Your task to perform on an android device: Search for "macbook air" on ebay.com, select the first entry, and add it to the cart. Image 0: 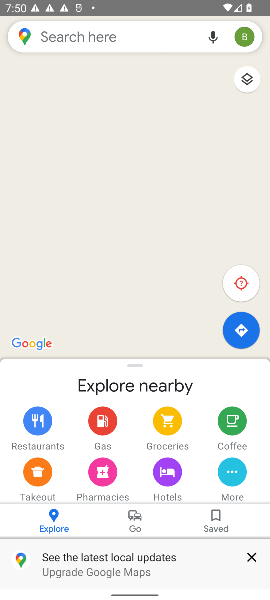
Step 0: press home button
Your task to perform on an android device: Search for "macbook air" on ebay.com, select the first entry, and add it to the cart. Image 1: 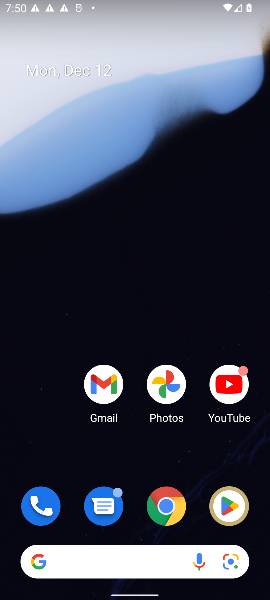
Step 1: click (144, 559)
Your task to perform on an android device: Search for "macbook air" on ebay.com, select the first entry, and add it to the cart. Image 2: 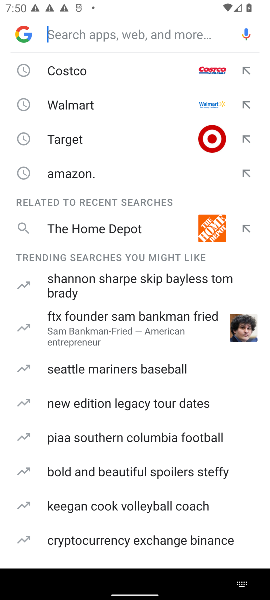
Step 2: type "ebay"
Your task to perform on an android device: Search for "macbook air" on ebay.com, select the first entry, and add it to the cart. Image 3: 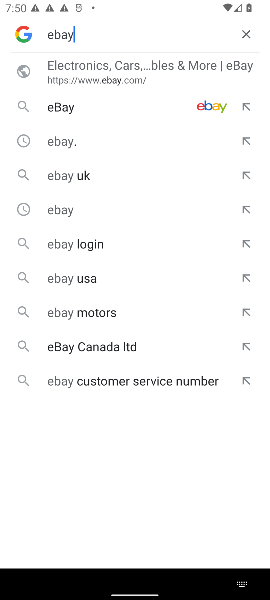
Step 3: click (149, 78)
Your task to perform on an android device: Search for "macbook air" on ebay.com, select the first entry, and add it to the cart. Image 4: 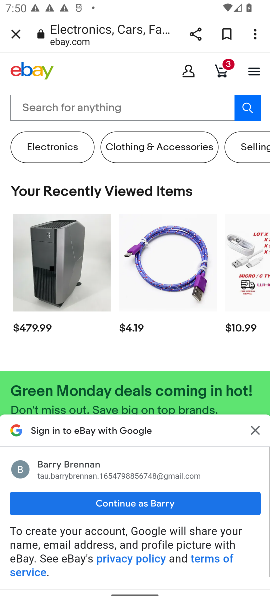
Step 4: click (109, 107)
Your task to perform on an android device: Search for "macbook air" on ebay.com, select the first entry, and add it to the cart. Image 5: 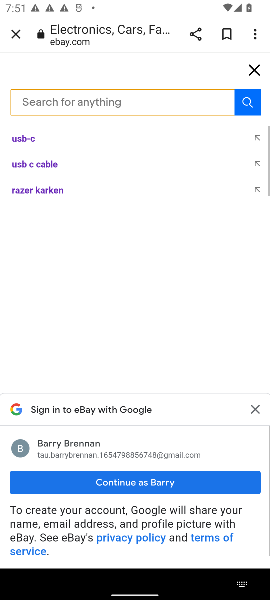
Step 5: type "macbook air"
Your task to perform on an android device: Search for "macbook air" on ebay.com, select the first entry, and add it to the cart. Image 6: 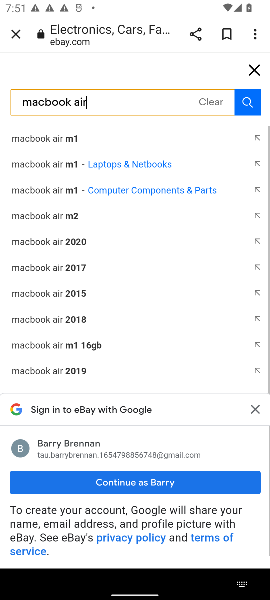
Step 6: click (243, 104)
Your task to perform on an android device: Search for "macbook air" on ebay.com, select the first entry, and add it to the cart. Image 7: 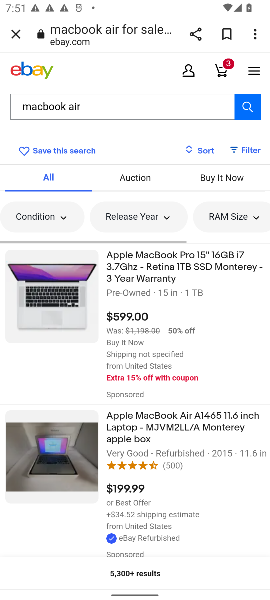
Step 7: click (171, 270)
Your task to perform on an android device: Search for "macbook air" on ebay.com, select the first entry, and add it to the cart. Image 8: 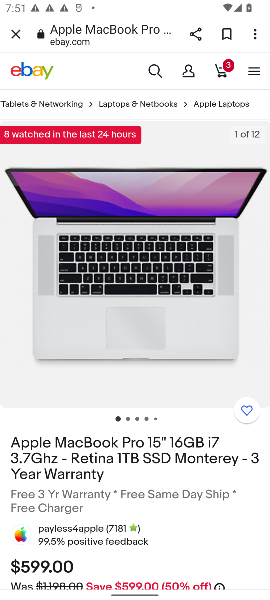
Step 8: drag from (187, 546) to (152, 319)
Your task to perform on an android device: Search for "macbook air" on ebay.com, select the first entry, and add it to the cart. Image 9: 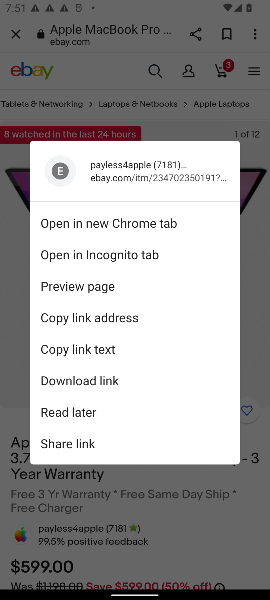
Step 9: click (201, 536)
Your task to perform on an android device: Search for "macbook air" on ebay.com, select the first entry, and add it to the cart. Image 10: 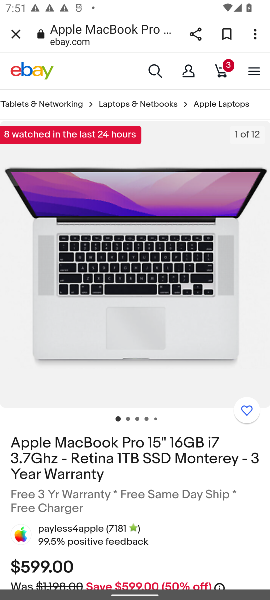
Step 10: drag from (201, 536) to (178, 290)
Your task to perform on an android device: Search for "macbook air" on ebay.com, select the first entry, and add it to the cart. Image 11: 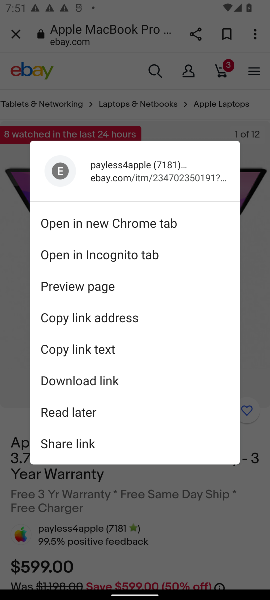
Step 11: click (213, 522)
Your task to perform on an android device: Search for "macbook air" on ebay.com, select the first entry, and add it to the cart. Image 12: 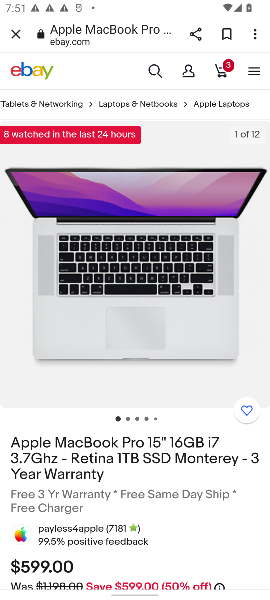
Step 12: drag from (213, 522) to (205, 275)
Your task to perform on an android device: Search for "macbook air" on ebay.com, select the first entry, and add it to the cart. Image 13: 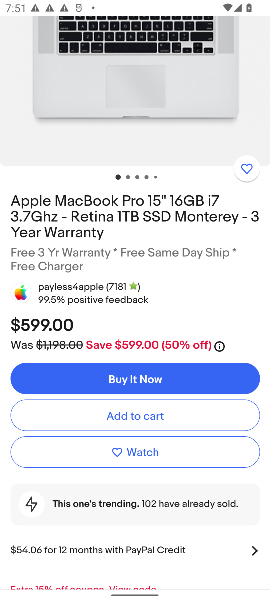
Step 13: click (110, 408)
Your task to perform on an android device: Search for "macbook air" on ebay.com, select the first entry, and add it to the cart. Image 14: 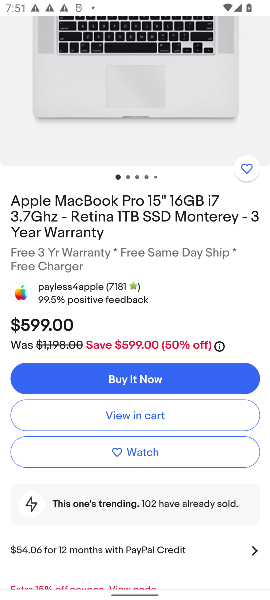
Step 14: task complete